Your task to perform on an android device: Open battery settings Image 0: 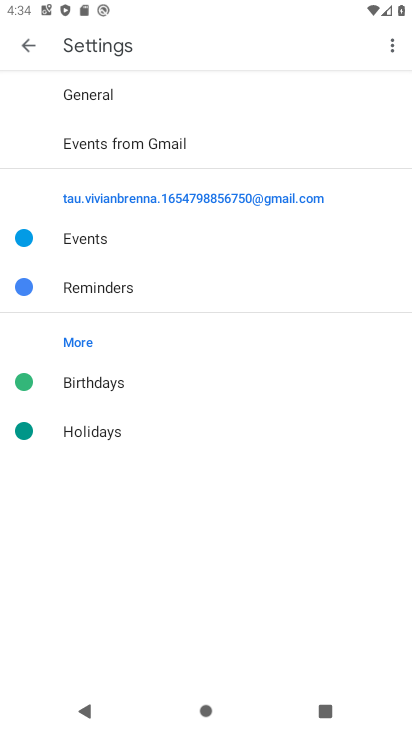
Step 0: press home button
Your task to perform on an android device: Open battery settings Image 1: 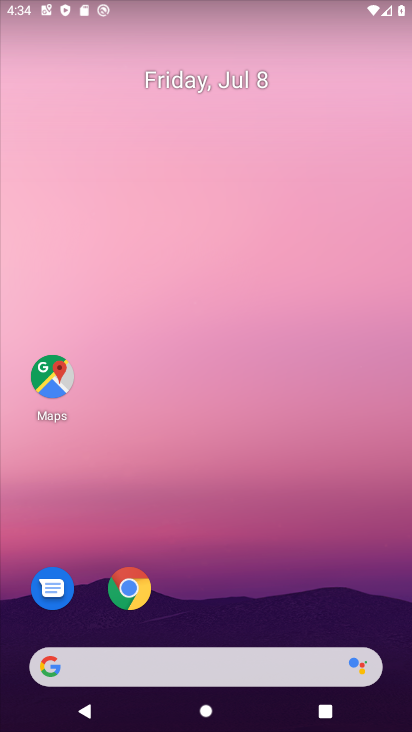
Step 1: drag from (175, 610) to (227, 10)
Your task to perform on an android device: Open battery settings Image 2: 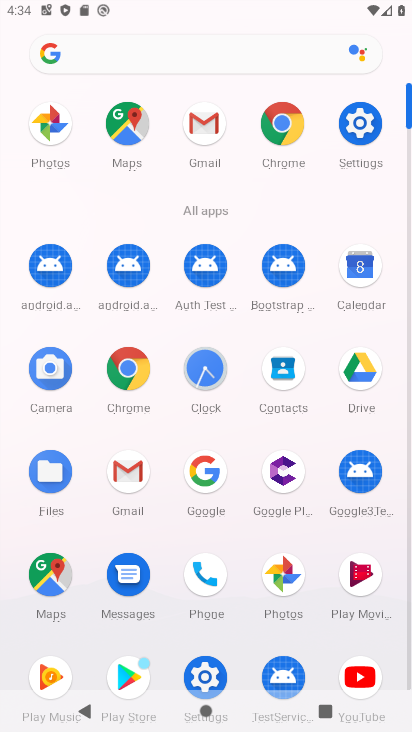
Step 2: click (203, 668)
Your task to perform on an android device: Open battery settings Image 3: 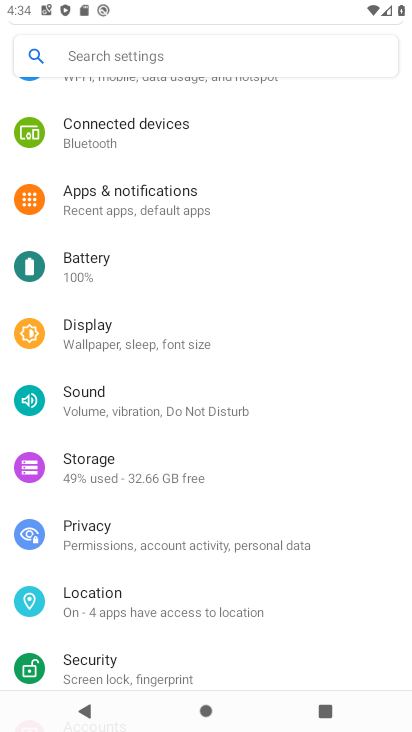
Step 3: click (130, 276)
Your task to perform on an android device: Open battery settings Image 4: 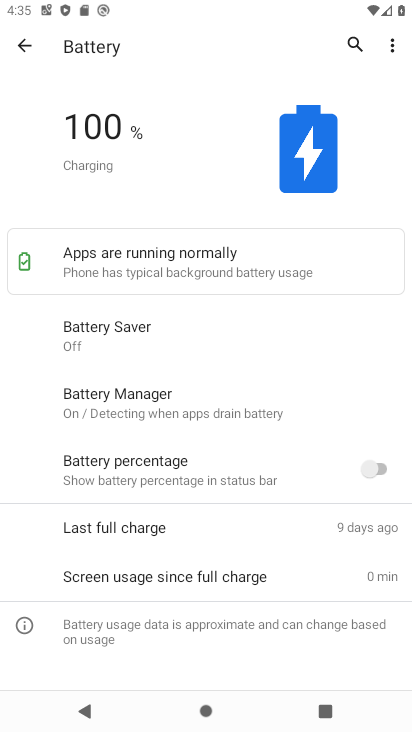
Step 4: task complete